Your task to perform on an android device: Search for hotels in Las Vegas Image 0: 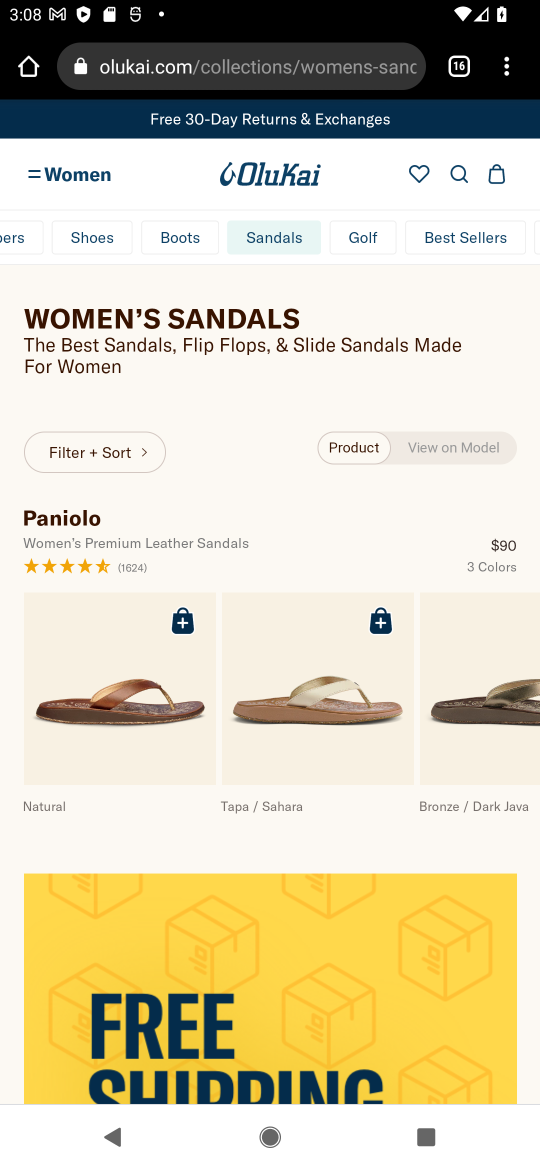
Step 0: press home button
Your task to perform on an android device: Search for hotels in Las Vegas Image 1: 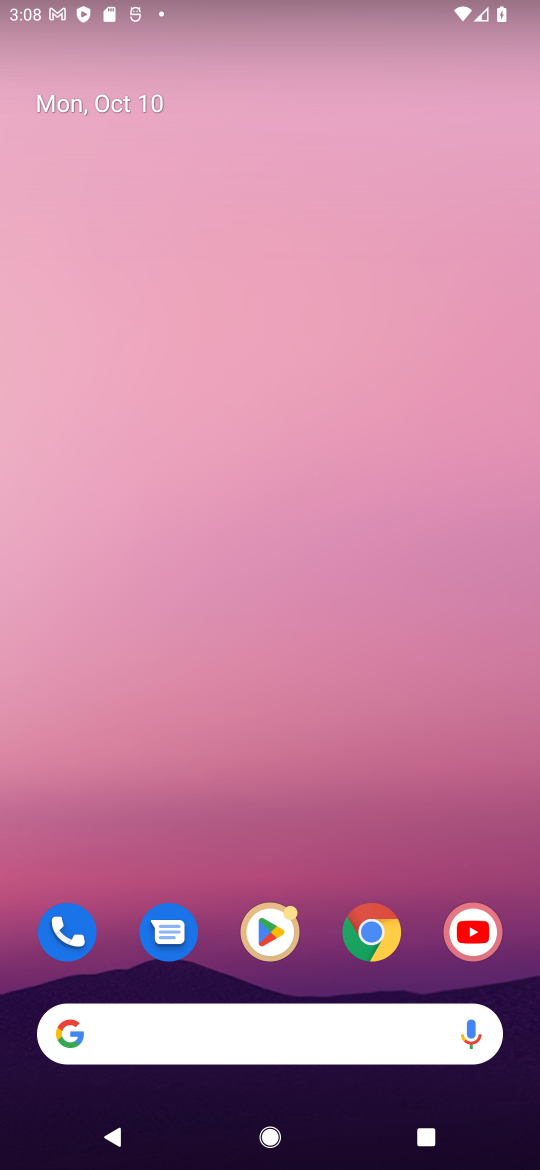
Step 1: click (268, 1031)
Your task to perform on an android device: Search for hotels in Las Vegas Image 2: 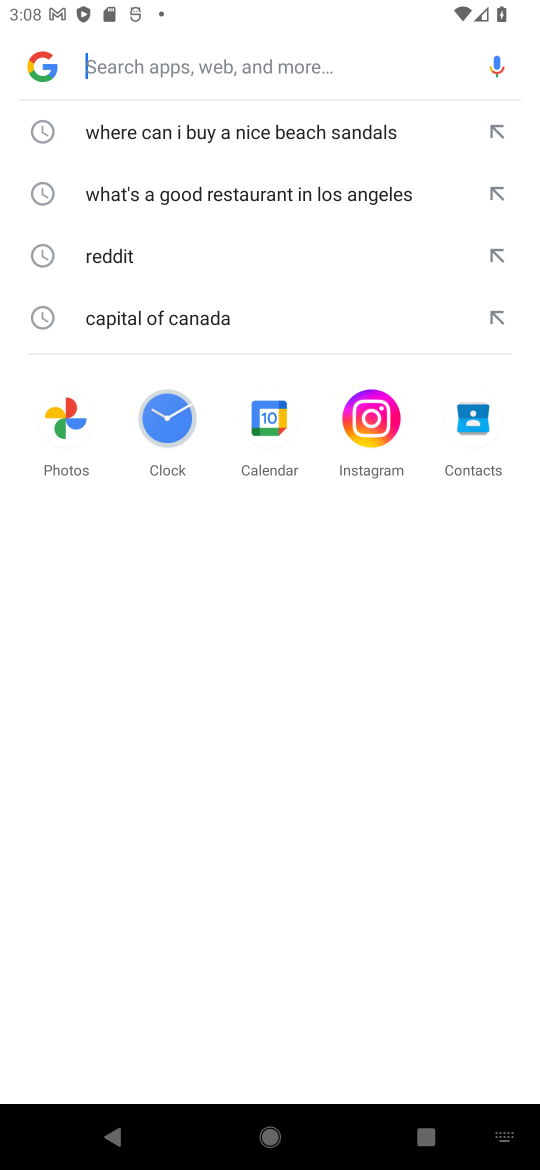
Step 2: type "hotels in las vegas"
Your task to perform on an android device: Search for hotels in Las Vegas Image 3: 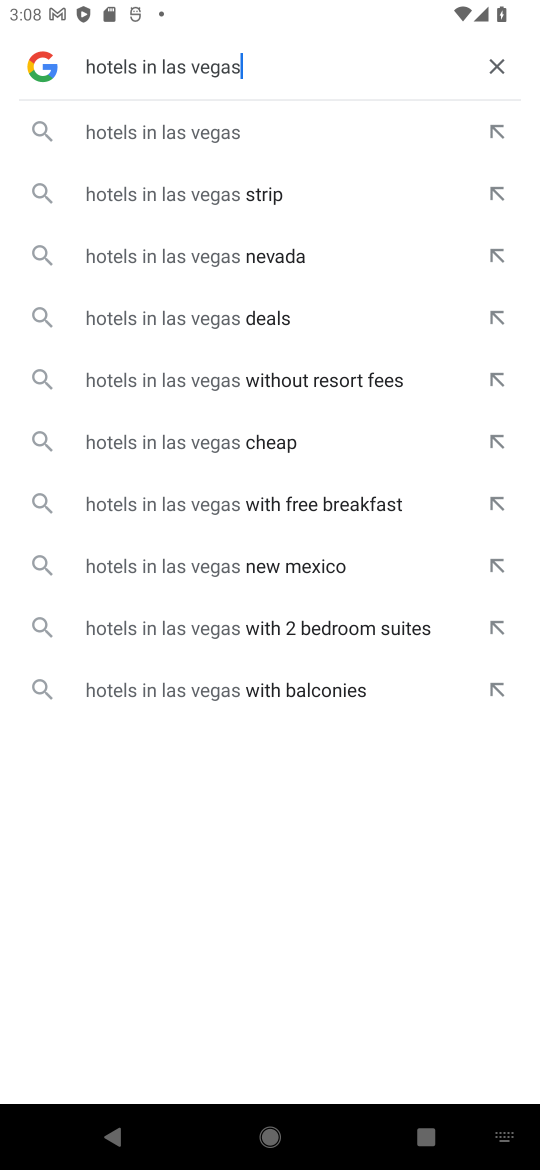
Step 3: press enter
Your task to perform on an android device: Search for hotels in Las Vegas Image 4: 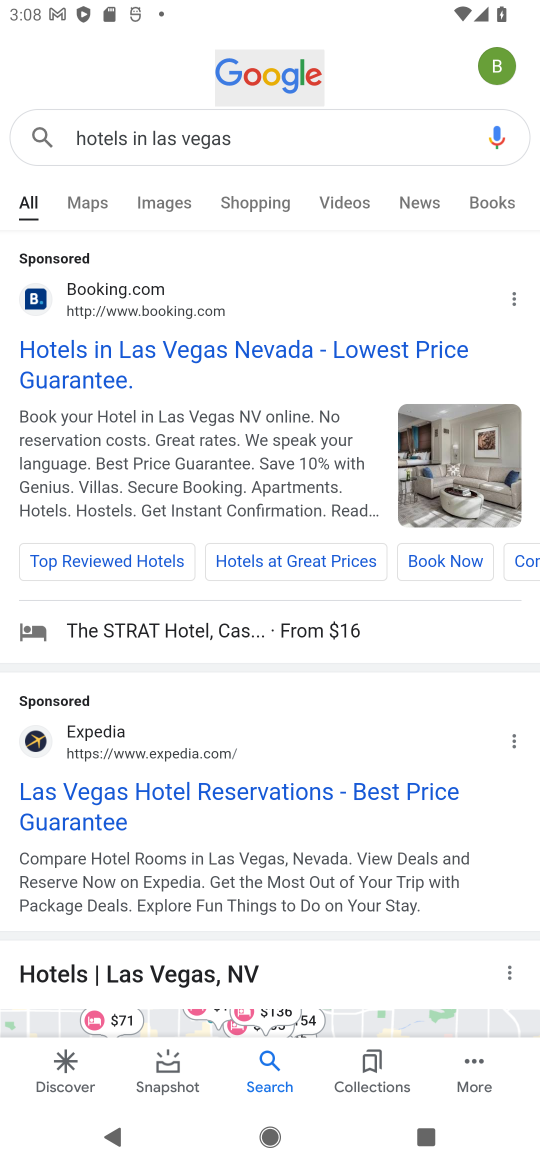
Step 4: drag from (317, 865) to (317, 376)
Your task to perform on an android device: Search for hotels in Las Vegas Image 5: 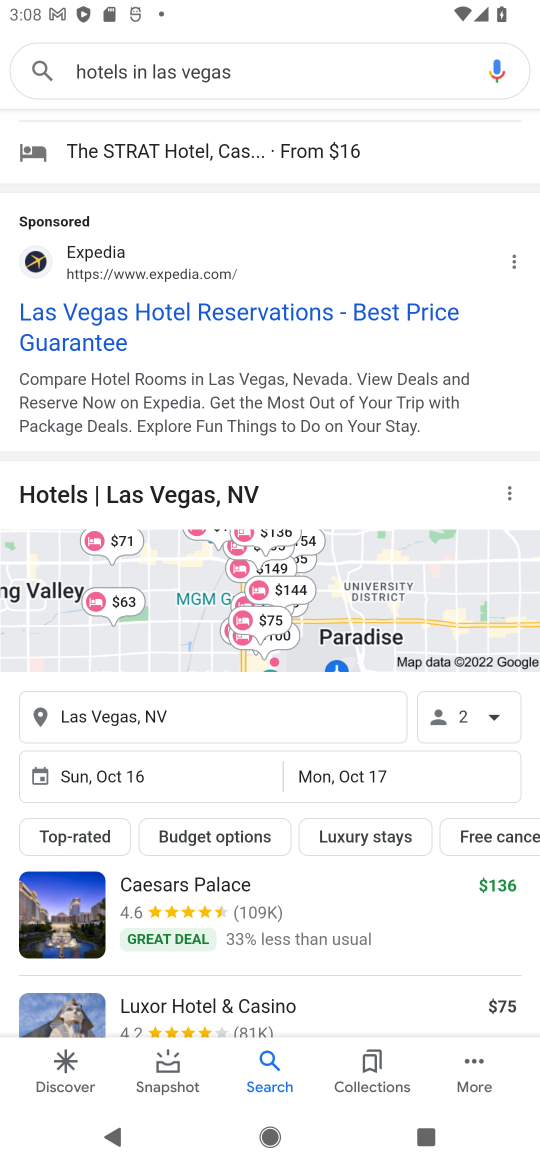
Step 5: drag from (302, 927) to (340, 618)
Your task to perform on an android device: Search for hotels in Las Vegas Image 6: 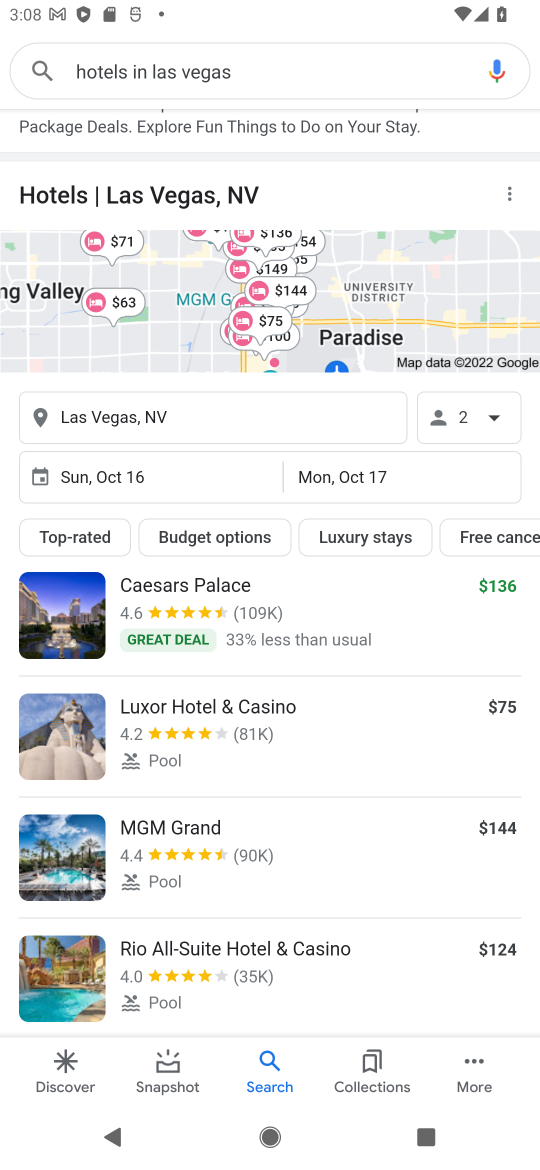
Step 6: drag from (310, 875) to (359, 513)
Your task to perform on an android device: Search for hotels in Las Vegas Image 7: 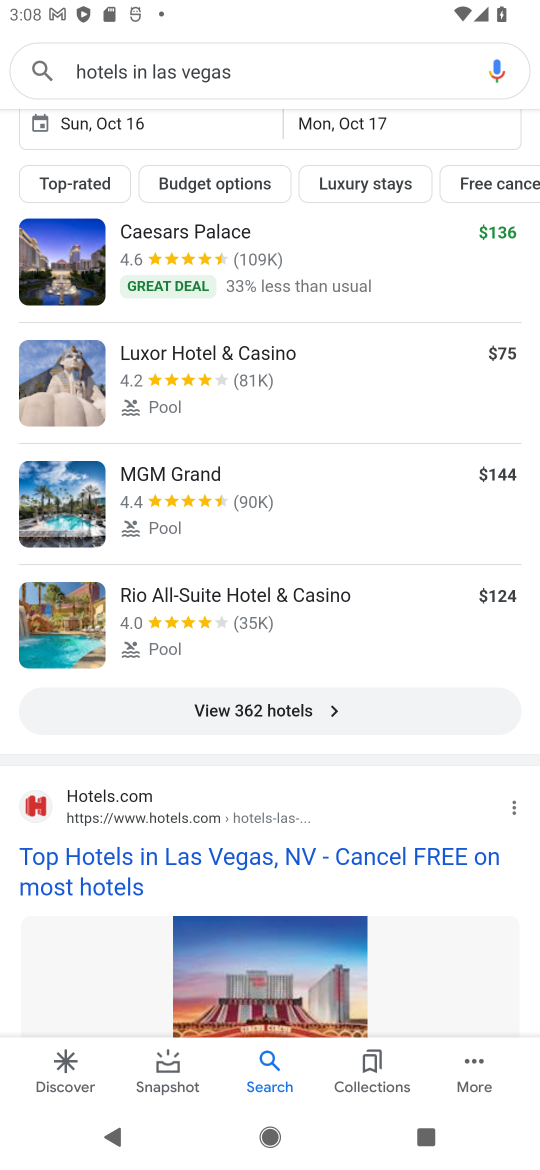
Step 7: click (257, 711)
Your task to perform on an android device: Search for hotels in Las Vegas Image 8: 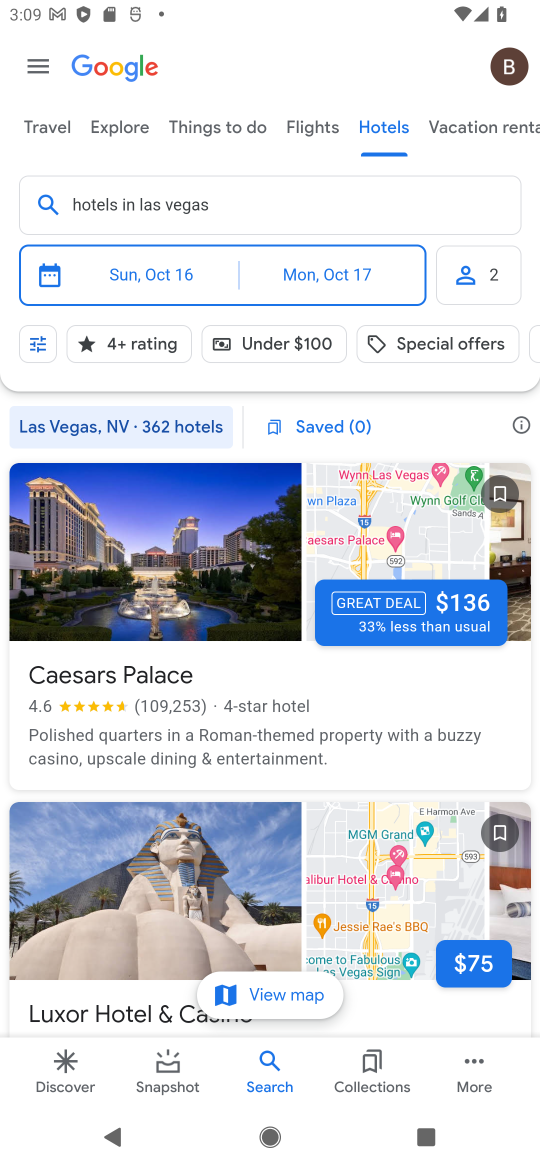
Step 8: task complete